Your task to perform on an android device: find which apps use the phone's location Image 0: 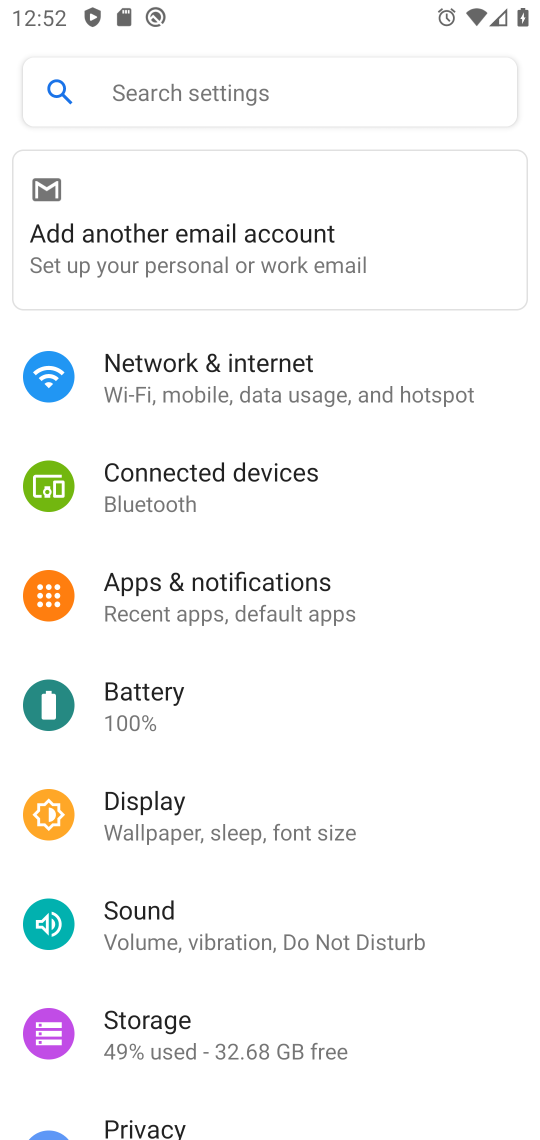
Step 0: drag from (253, 1097) to (311, 597)
Your task to perform on an android device: find which apps use the phone's location Image 1: 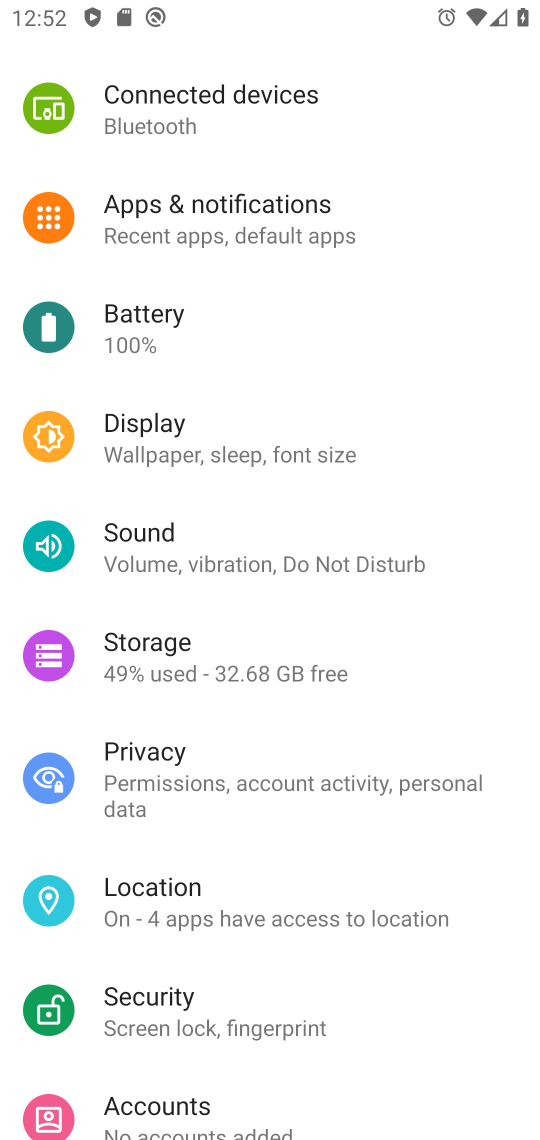
Step 1: click (197, 893)
Your task to perform on an android device: find which apps use the phone's location Image 2: 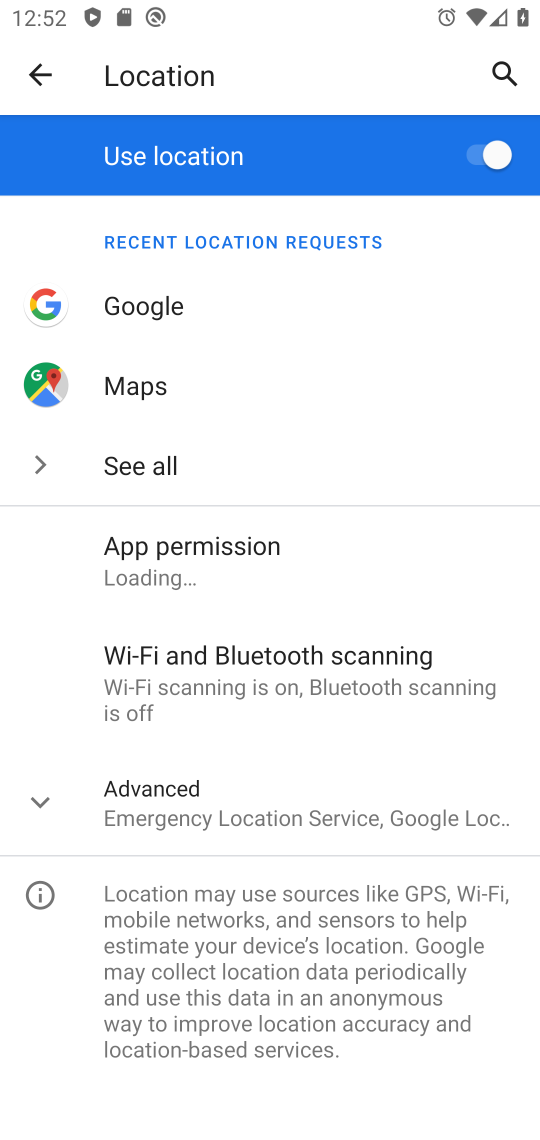
Step 2: click (194, 824)
Your task to perform on an android device: find which apps use the phone's location Image 3: 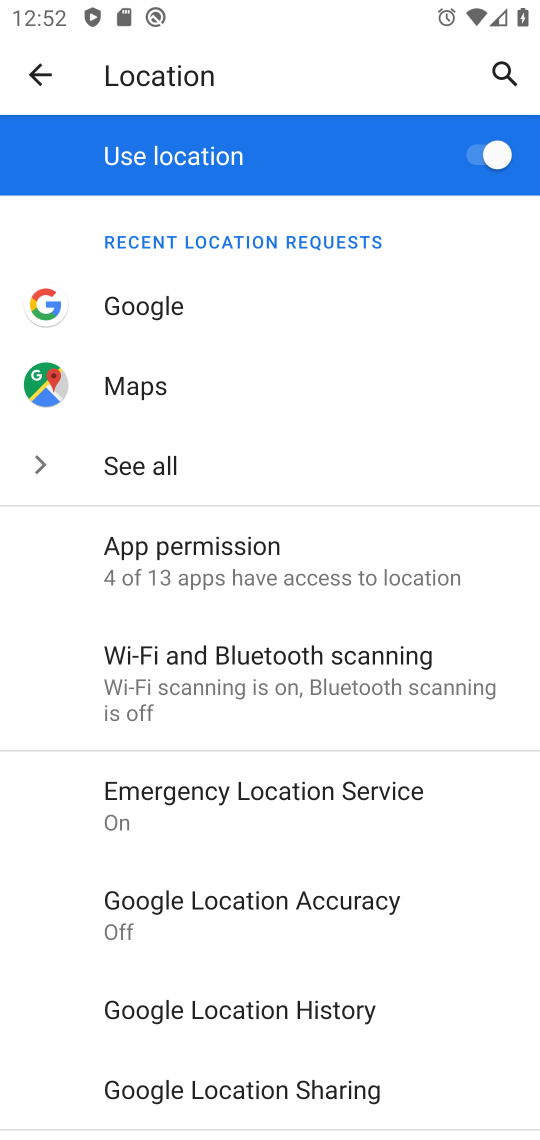
Step 3: click (246, 567)
Your task to perform on an android device: find which apps use the phone's location Image 4: 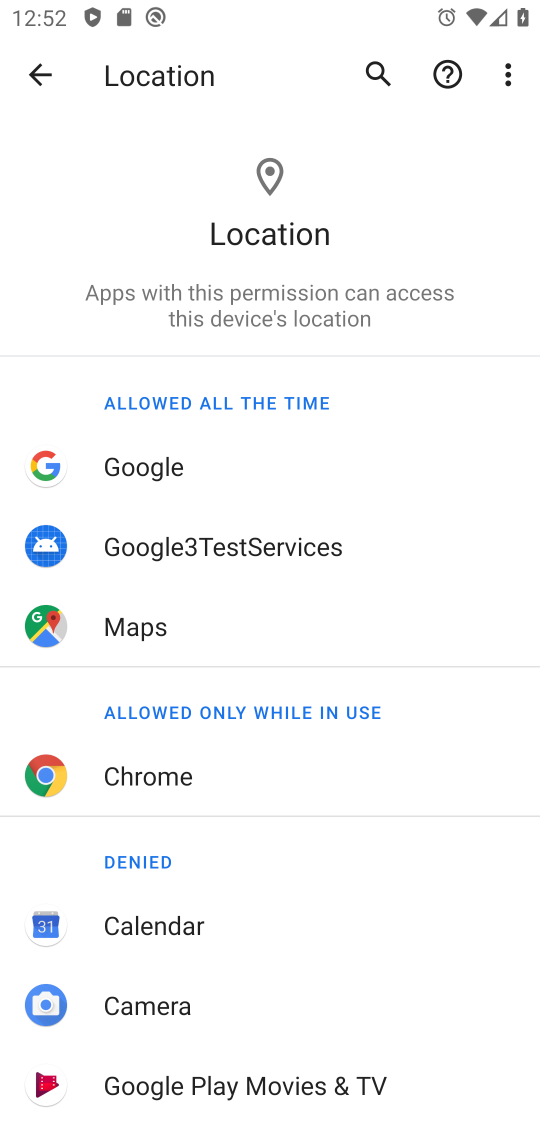
Step 4: task complete